Your task to perform on an android device: set default search engine in the chrome app Image 0: 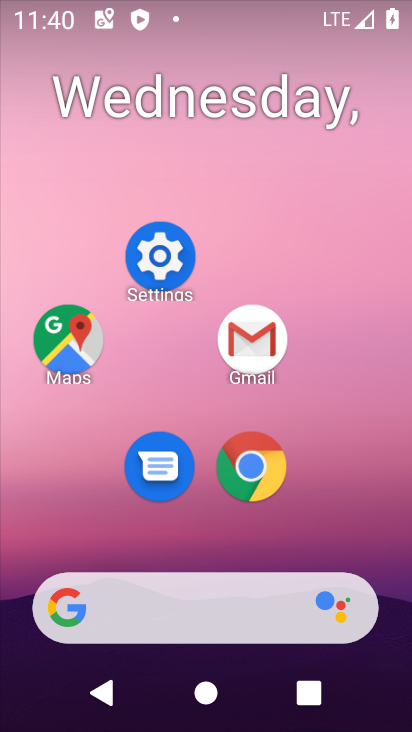
Step 0: drag from (210, 537) to (207, 193)
Your task to perform on an android device: set default search engine in the chrome app Image 1: 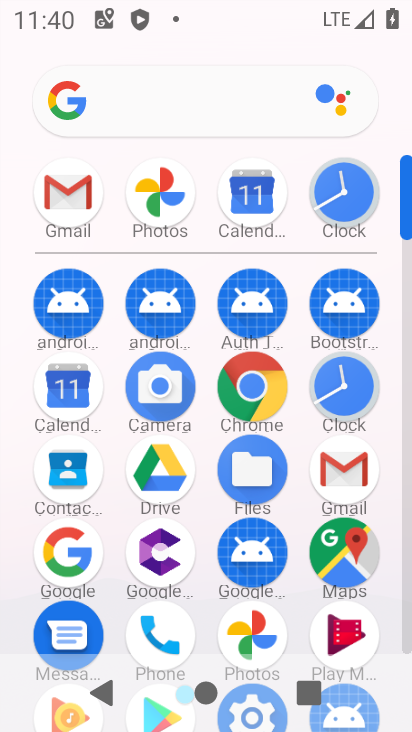
Step 1: click (250, 388)
Your task to perform on an android device: set default search engine in the chrome app Image 2: 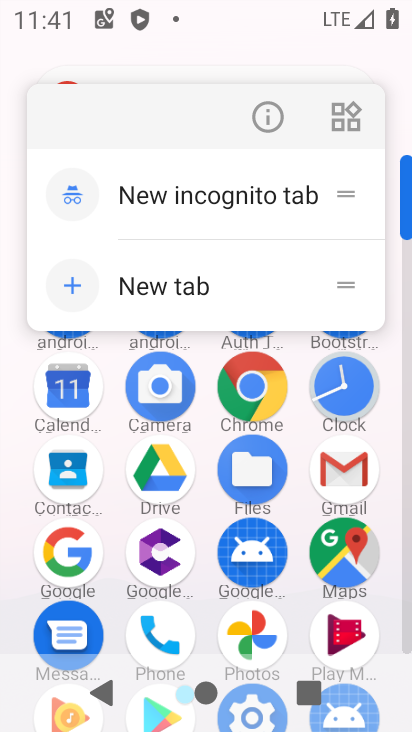
Step 2: click (254, 118)
Your task to perform on an android device: set default search engine in the chrome app Image 3: 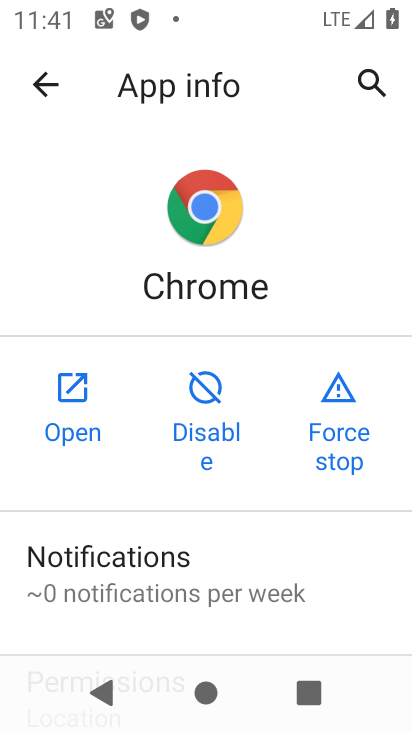
Step 3: click (77, 412)
Your task to perform on an android device: set default search engine in the chrome app Image 4: 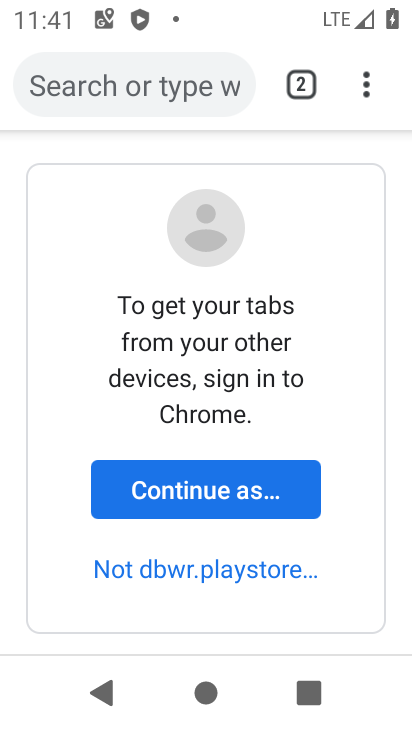
Step 4: drag from (335, 179) to (311, 442)
Your task to perform on an android device: set default search engine in the chrome app Image 5: 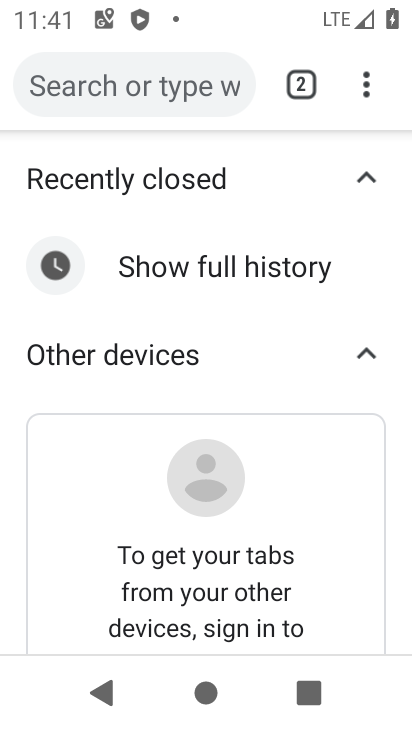
Step 5: drag from (312, 443) to (373, 151)
Your task to perform on an android device: set default search engine in the chrome app Image 6: 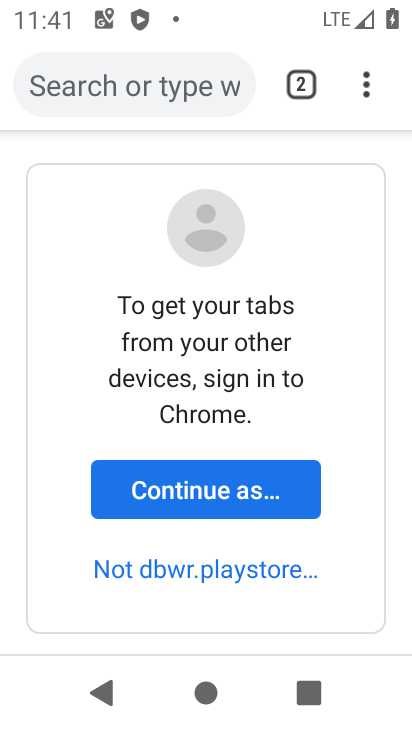
Step 6: drag from (329, 193) to (350, 527)
Your task to perform on an android device: set default search engine in the chrome app Image 7: 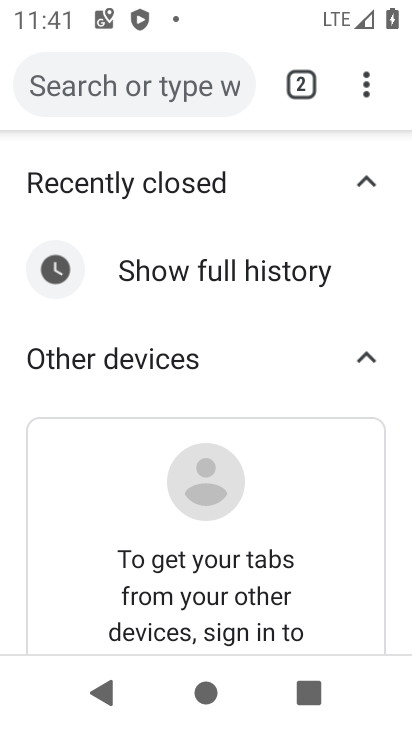
Step 7: click (366, 89)
Your task to perform on an android device: set default search engine in the chrome app Image 8: 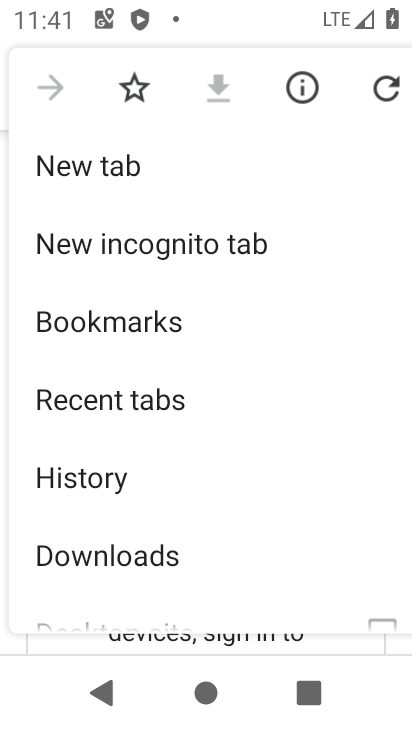
Step 8: drag from (196, 496) to (239, 163)
Your task to perform on an android device: set default search engine in the chrome app Image 9: 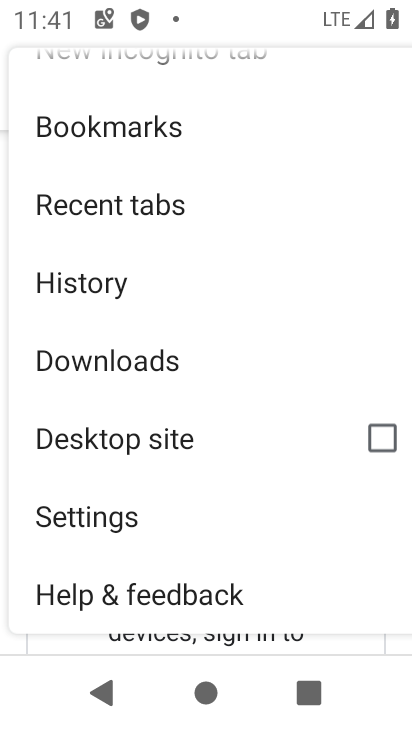
Step 9: click (143, 511)
Your task to perform on an android device: set default search engine in the chrome app Image 10: 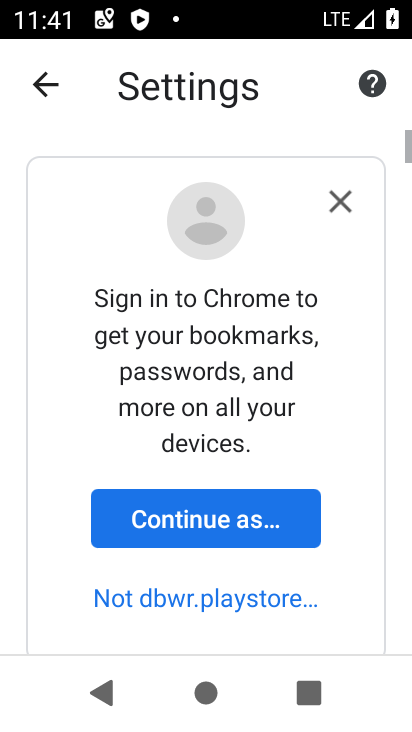
Step 10: drag from (203, 497) to (258, 112)
Your task to perform on an android device: set default search engine in the chrome app Image 11: 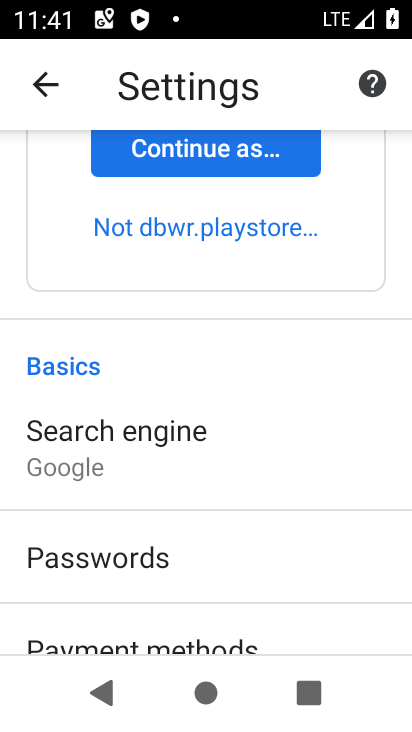
Step 11: drag from (168, 547) to (177, 359)
Your task to perform on an android device: set default search engine in the chrome app Image 12: 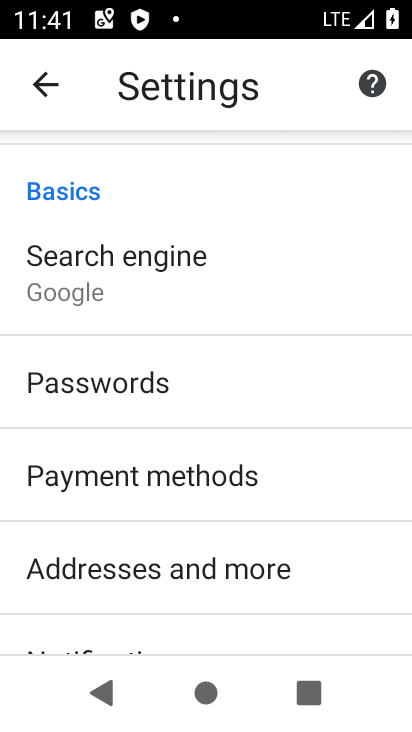
Step 12: click (144, 284)
Your task to perform on an android device: set default search engine in the chrome app Image 13: 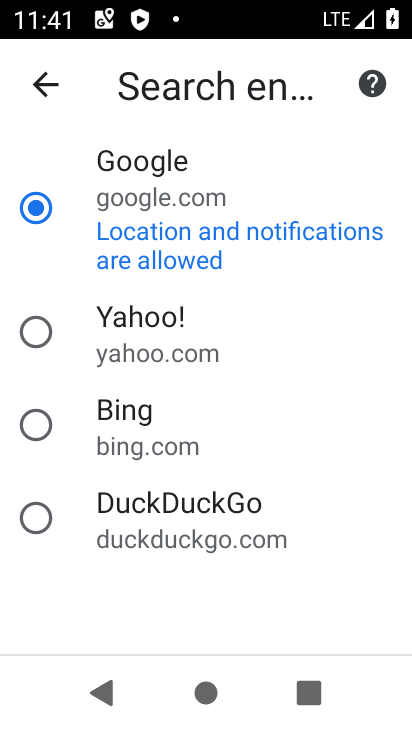
Step 13: task complete